Your task to perform on an android device: Search for sushi restaurants on Maps Image 0: 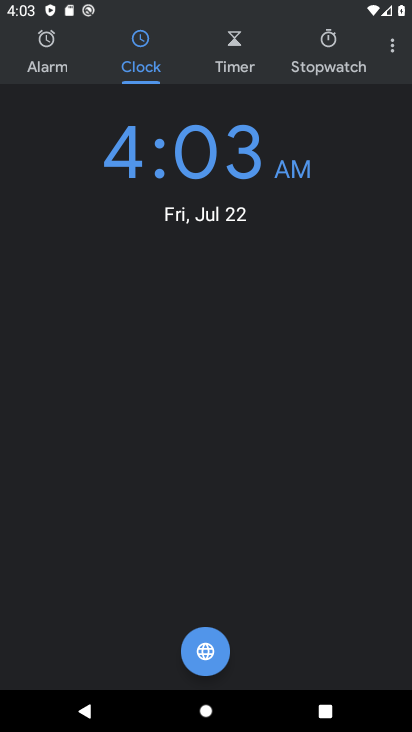
Step 0: press home button
Your task to perform on an android device: Search for sushi restaurants on Maps Image 1: 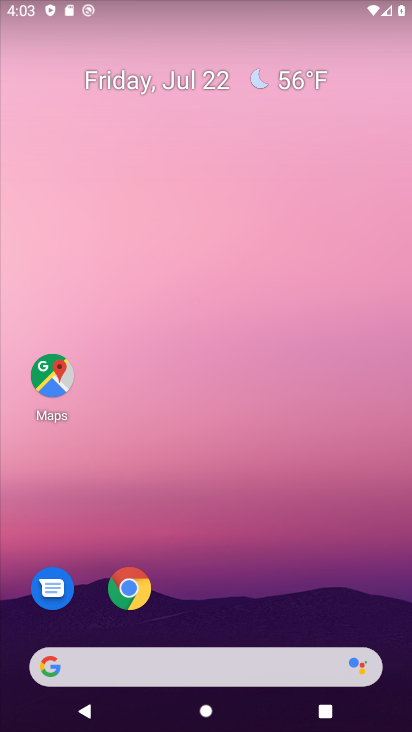
Step 1: click (56, 409)
Your task to perform on an android device: Search for sushi restaurants on Maps Image 2: 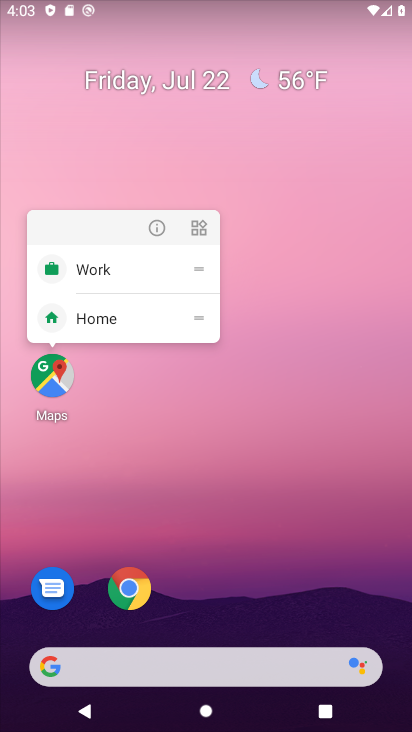
Step 2: click (68, 386)
Your task to perform on an android device: Search for sushi restaurants on Maps Image 3: 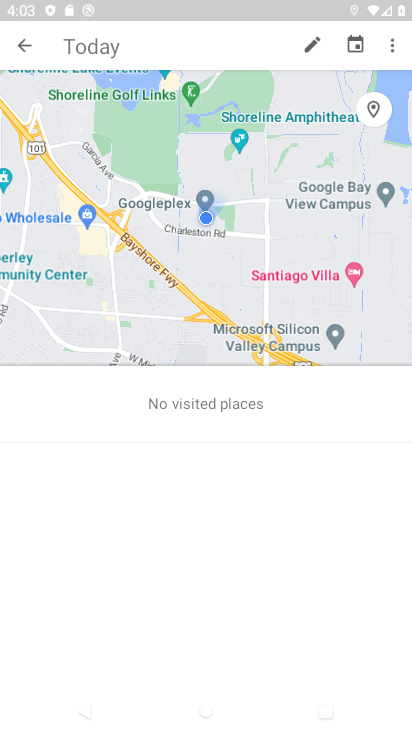
Step 3: click (21, 40)
Your task to perform on an android device: Search for sushi restaurants on Maps Image 4: 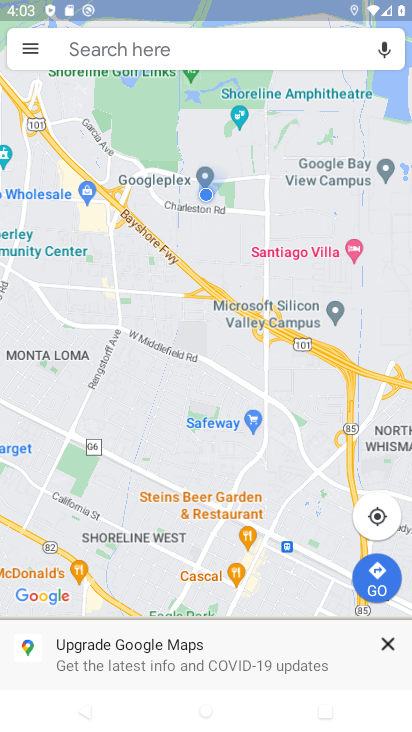
Step 4: click (86, 56)
Your task to perform on an android device: Search for sushi restaurants on Maps Image 5: 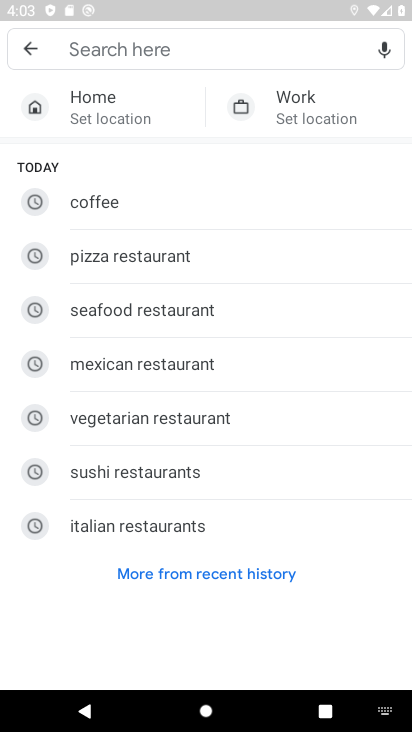
Step 5: click (159, 478)
Your task to perform on an android device: Search for sushi restaurants on Maps Image 6: 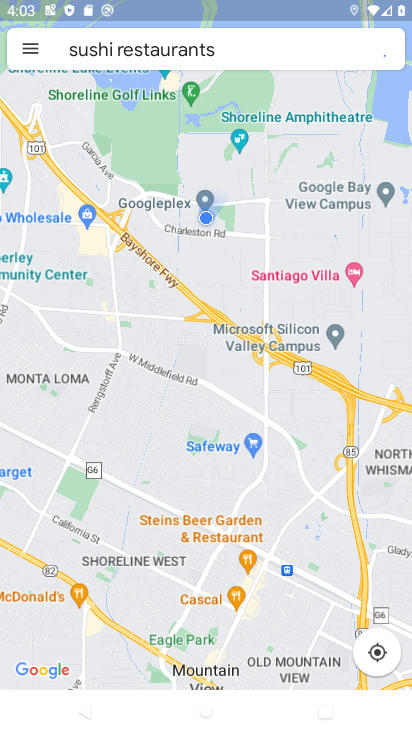
Step 6: task complete